Your task to perform on an android device: Open notification settings Image 0: 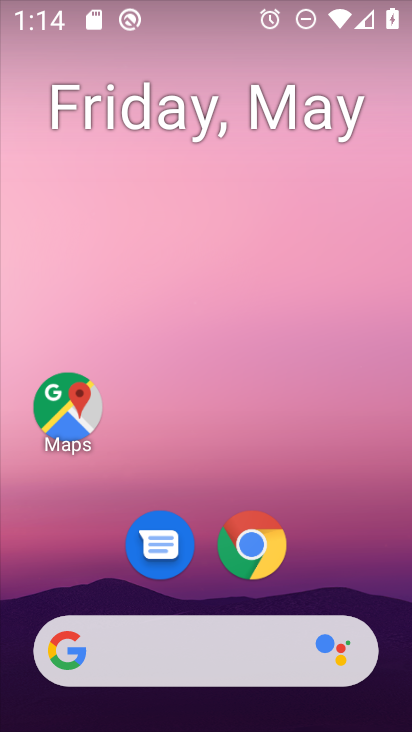
Step 0: drag from (321, 560) to (358, 150)
Your task to perform on an android device: Open notification settings Image 1: 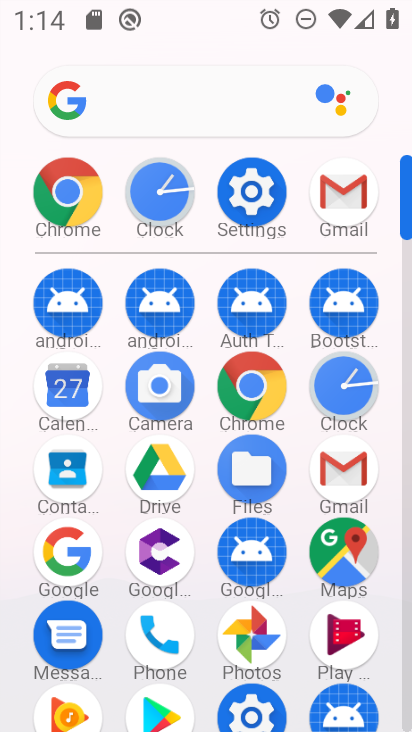
Step 1: click (244, 192)
Your task to perform on an android device: Open notification settings Image 2: 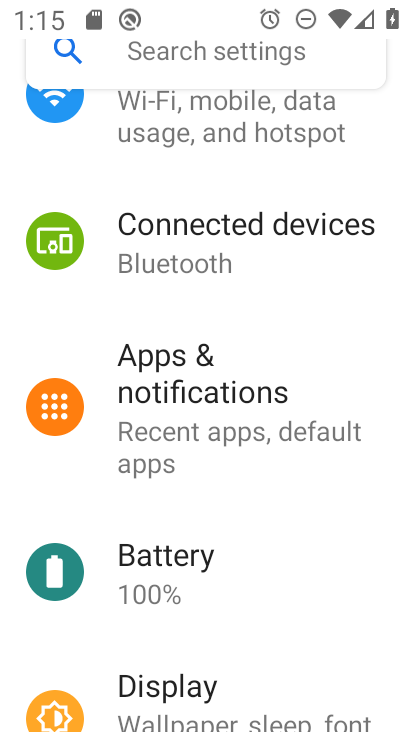
Step 2: click (212, 397)
Your task to perform on an android device: Open notification settings Image 3: 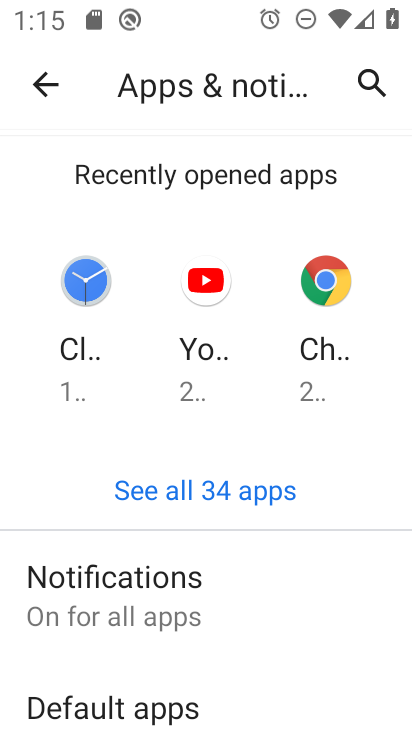
Step 3: click (155, 604)
Your task to perform on an android device: Open notification settings Image 4: 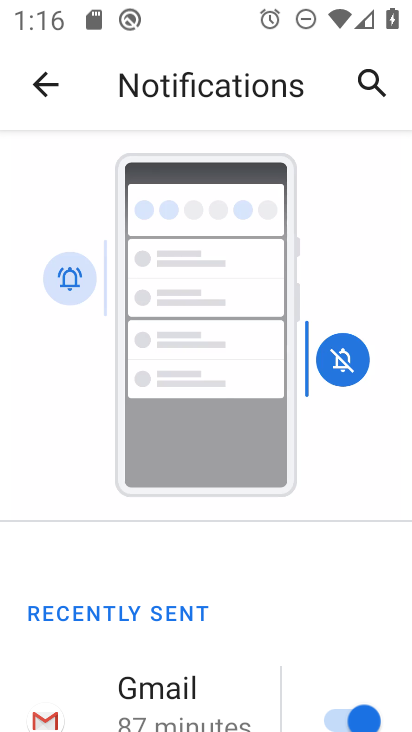
Step 4: task complete